Your task to perform on an android device: open wifi settings Image 0: 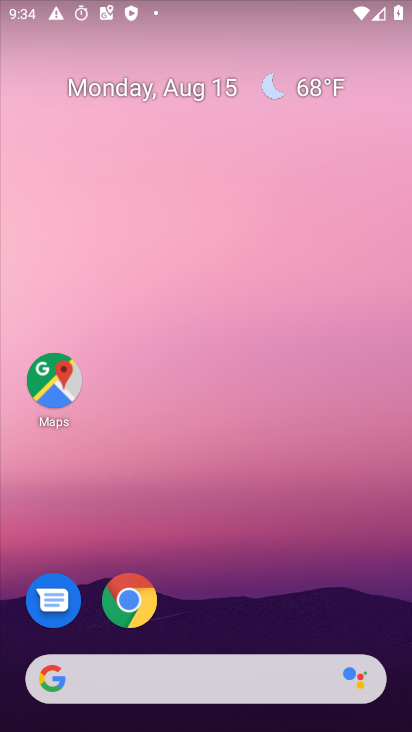
Step 0: drag from (209, 564) to (184, 62)
Your task to perform on an android device: open wifi settings Image 1: 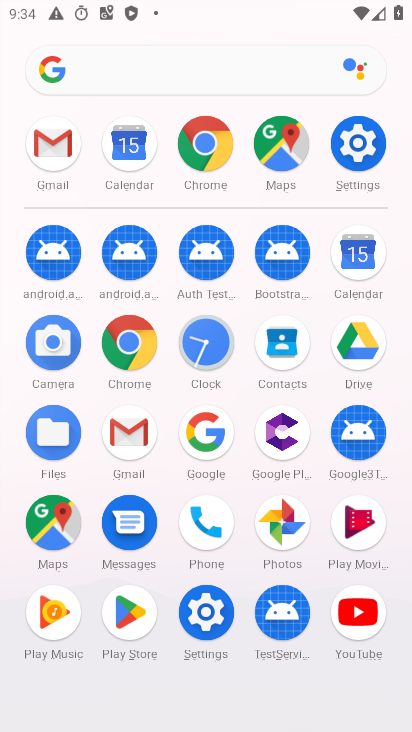
Step 1: click (373, 160)
Your task to perform on an android device: open wifi settings Image 2: 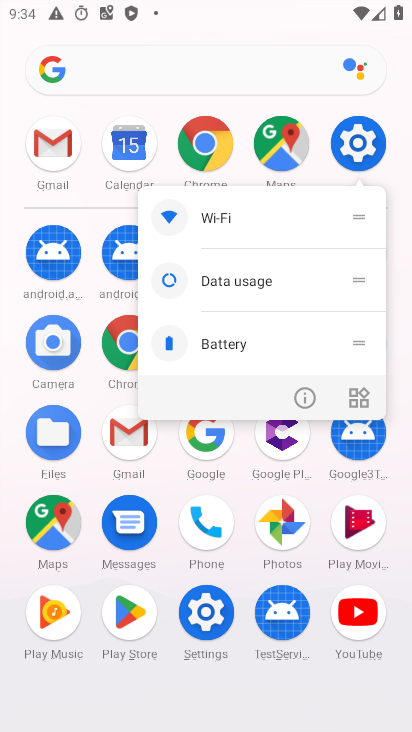
Step 2: click (367, 164)
Your task to perform on an android device: open wifi settings Image 3: 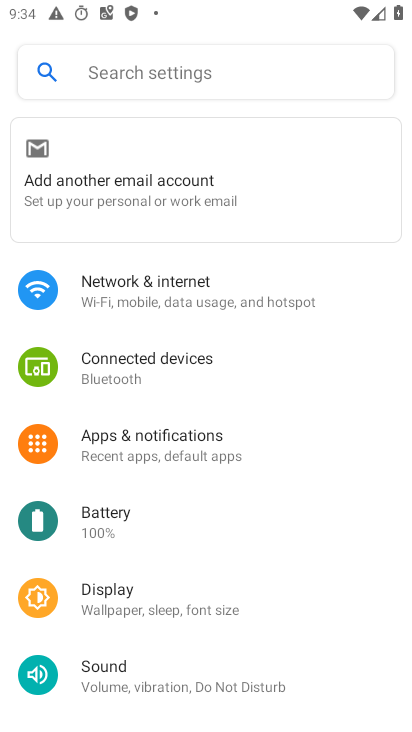
Step 3: click (91, 289)
Your task to perform on an android device: open wifi settings Image 4: 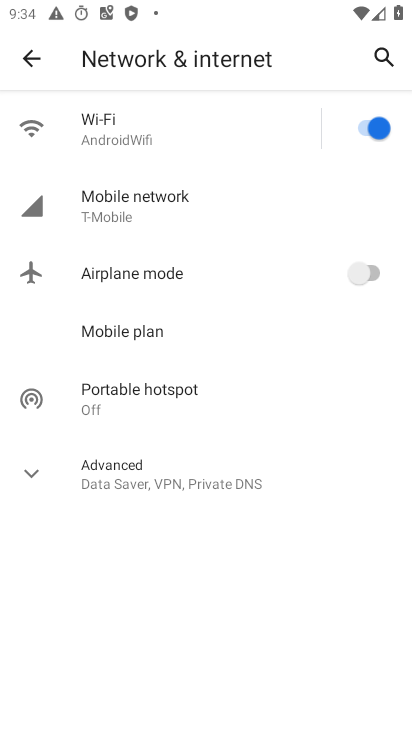
Step 4: task complete